Your task to perform on an android device: Go to internet settings Image 0: 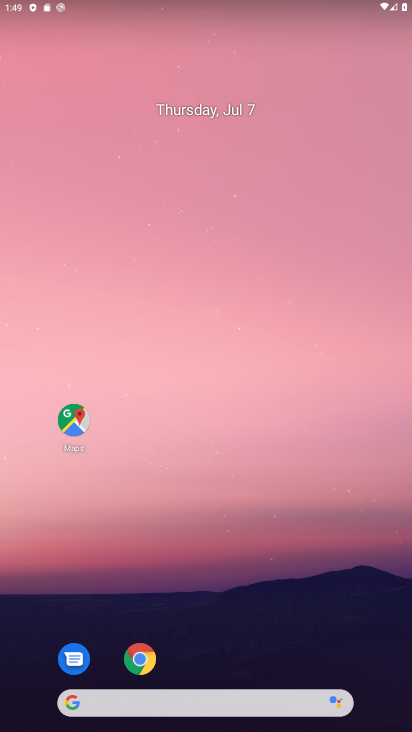
Step 0: drag from (310, 523) to (256, 11)
Your task to perform on an android device: Go to internet settings Image 1: 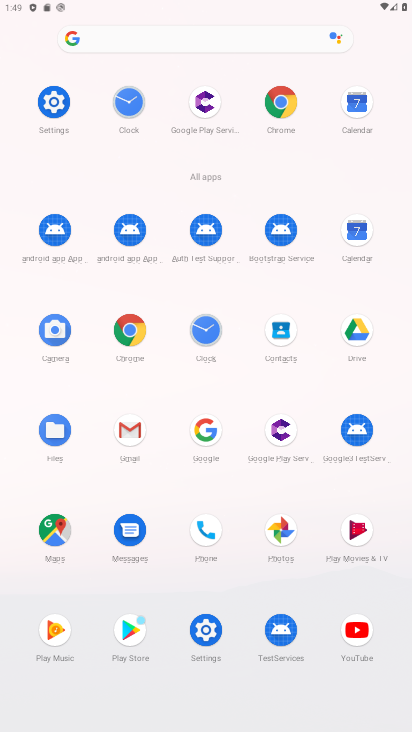
Step 1: click (205, 618)
Your task to perform on an android device: Go to internet settings Image 2: 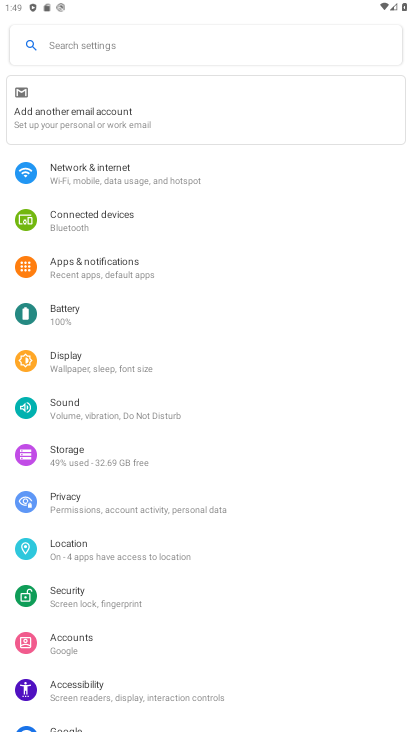
Step 2: click (148, 167)
Your task to perform on an android device: Go to internet settings Image 3: 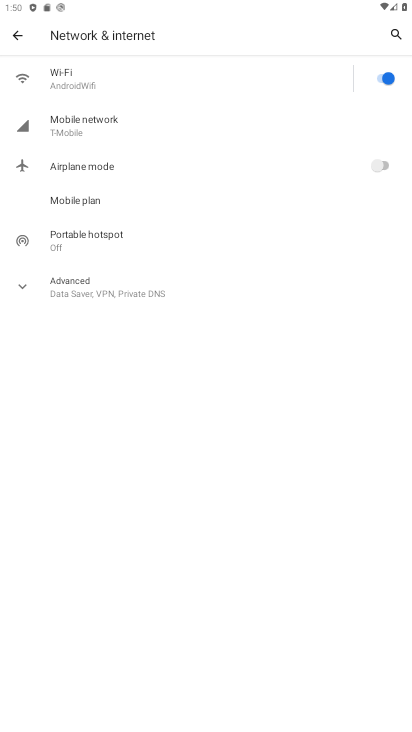
Step 3: task complete